Your task to perform on an android device: delete browsing data in the chrome app Image 0: 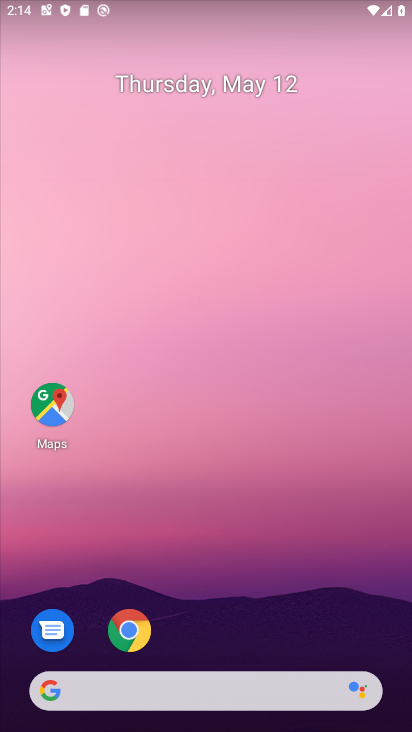
Step 0: click (130, 630)
Your task to perform on an android device: delete browsing data in the chrome app Image 1: 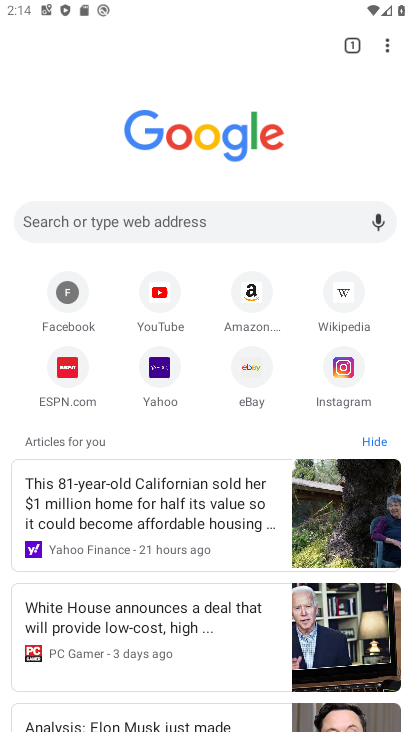
Step 1: click (387, 46)
Your task to perform on an android device: delete browsing data in the chrome app Image 2: 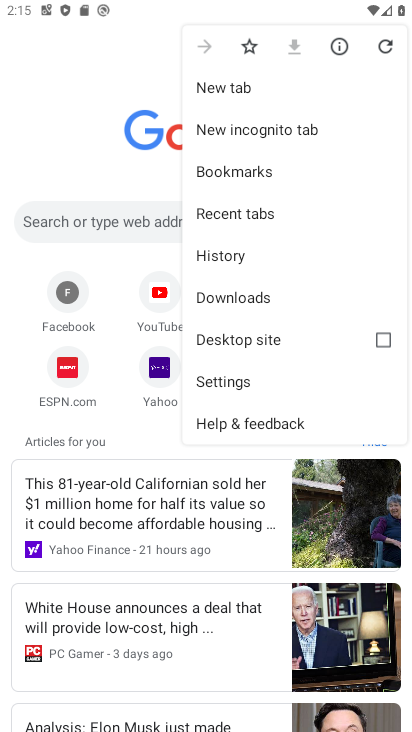
Step 2: click (230, 381)
Your task to perform on an android device: delete browsing data in the chrome app Image 3: 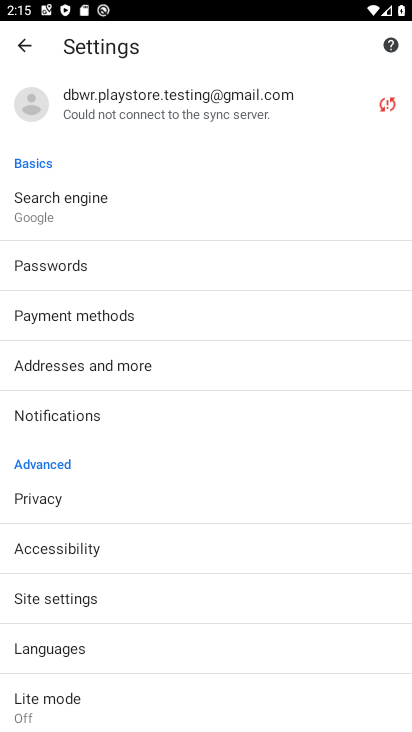
Step 3: click (47, 497)
Your task to perform on an android device: delete browsing data in the chrome app Image 4: 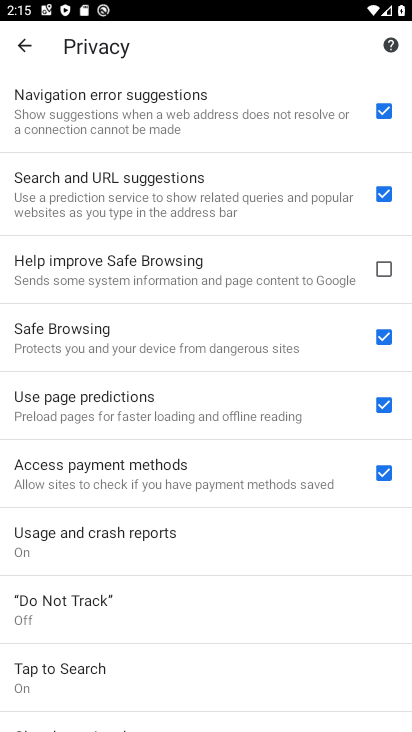
Step 4: drag from (98, 560) to (179, 379)
Your task to perform on an android device: delete browsing data in the chrome app Image 5: 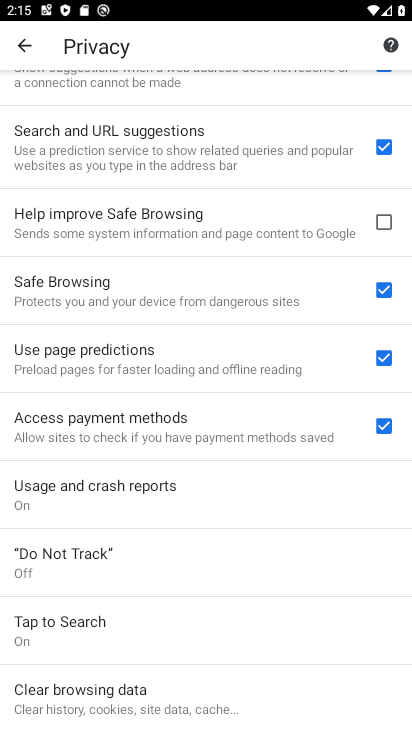
Step 5: click (79, 686)
Your task to perform on an android device: delete browsing data in the chrome app Image 6: 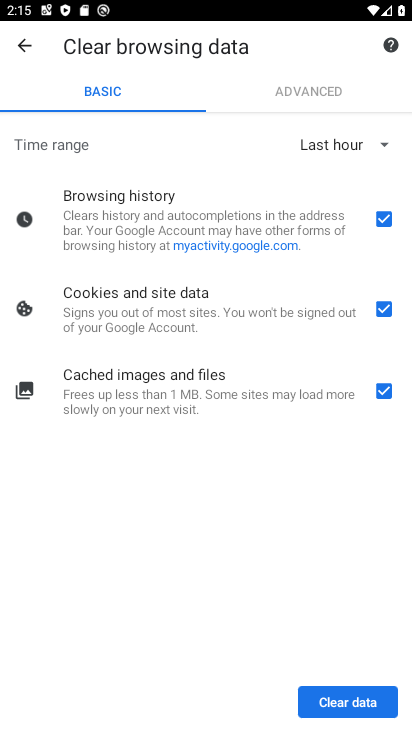
Step 6: click (388, 306)
Your task to perform on an android device: delete browsing data in the chrome app Image 7: 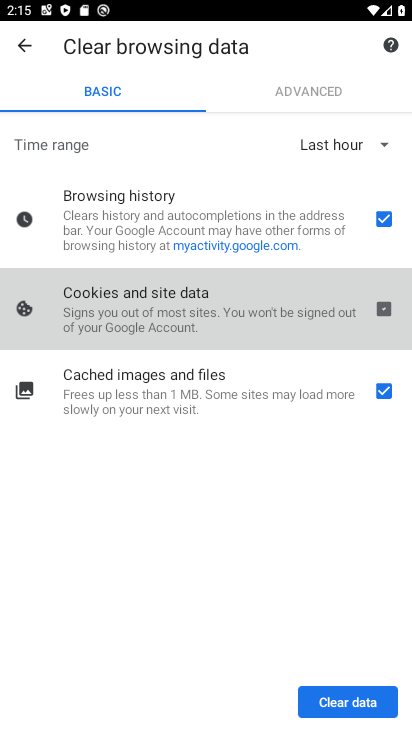
Step 7: click (375, 379)
Your task to perform on an android device: delete browsing data in the chrome app Image 8: 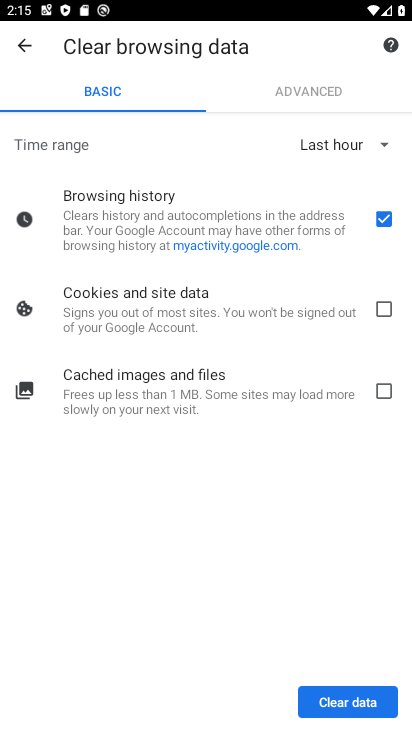
Step 8: click (338, 693)
Your task to perform on an android device: delete browsing data in the chrome app Image 9: 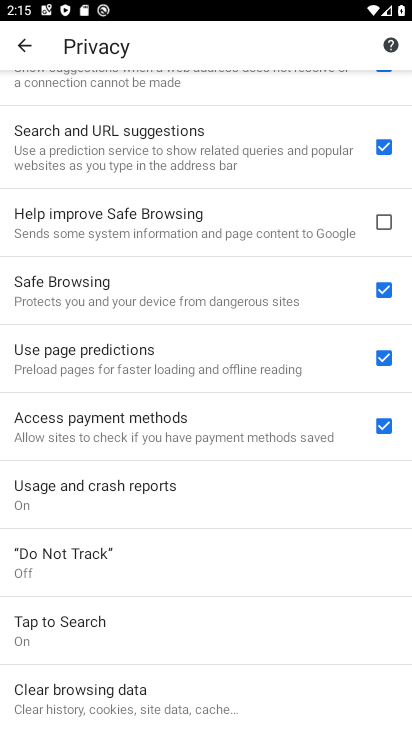
Step 9: task complete